Your task to perform on an android device: See recent photos Image 0: 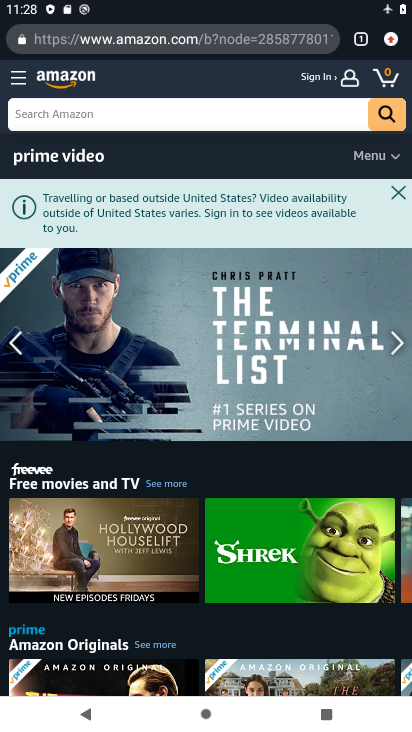
Step 0: drag from (227, 508) to (280, 346)
Your task to perform on an android device: See recent photos Image 1: 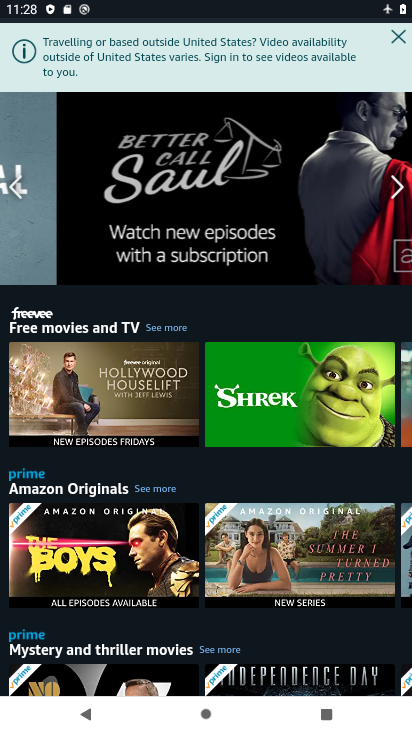
Step 1: drag from (193, 628) to (251, 410)
Your task to perform on an android device: See recent photos Image 2: 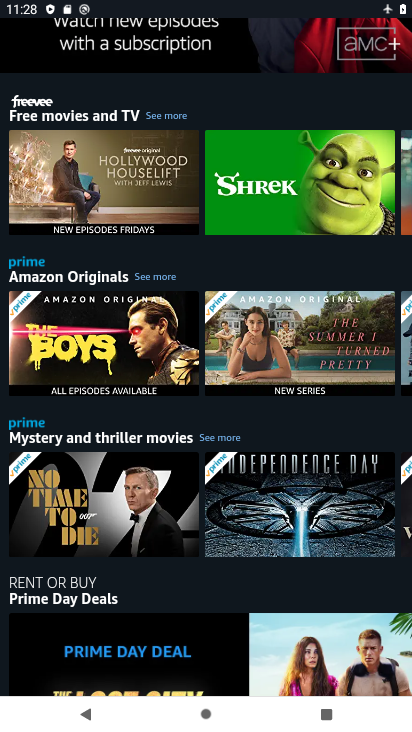
Step 2: drag from (197, 146) to (206, 635)
Your task to perform on an android device: See recent photos Image 3: 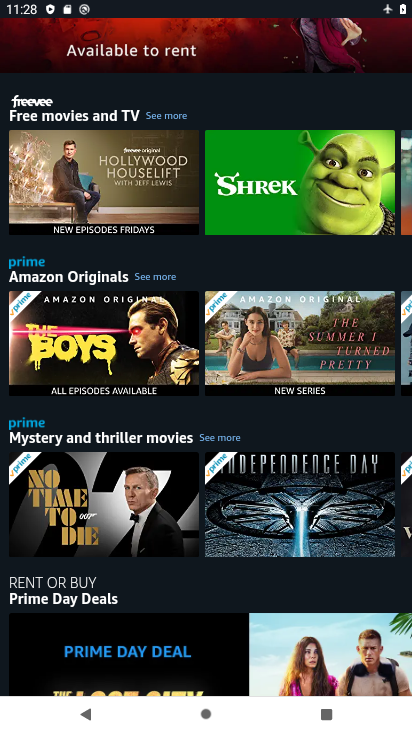
Step 3: press home button
Your task to perform on an android device: See recent photos Image 4: 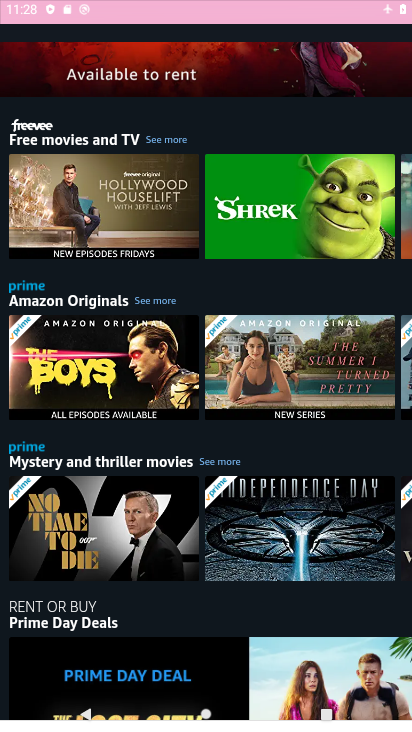
Step 4: drag from (131, 624) to (283, 122)
Your task to perform on an android device: See recent photos Image 5: 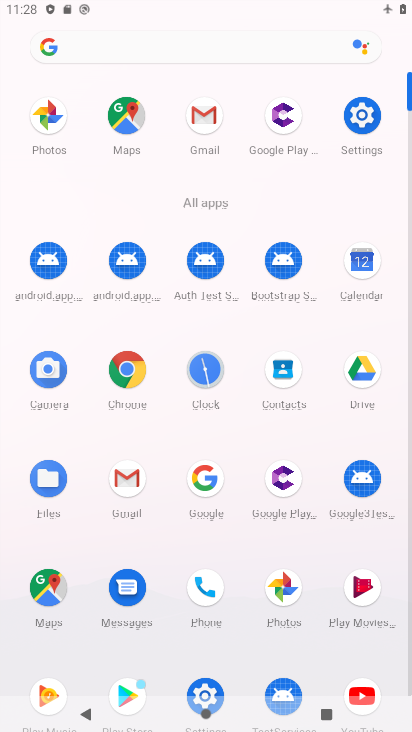
Step 5: click (278, 584)
Your task to perform on an android device: See recent photos Image 6: 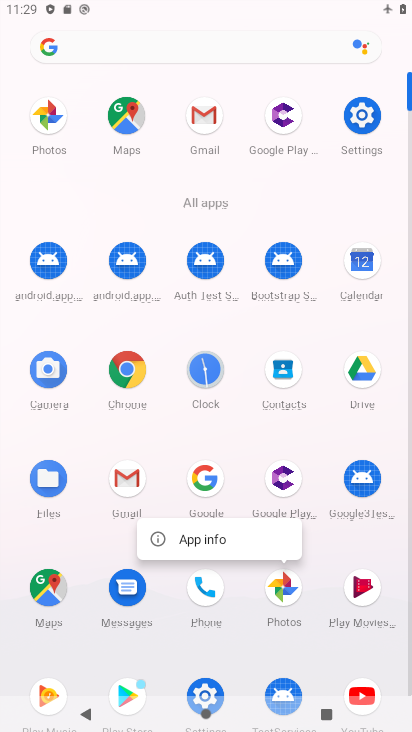
Step 6: click (179, 543)
Your task to perform on an android device: See recent photos Image 7: 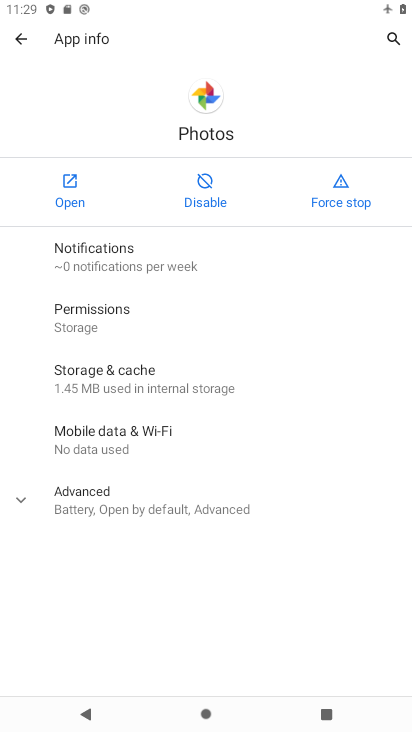
Step 7: click (49, 169)
Your task to perform on an android device: See recent photos Image 8: 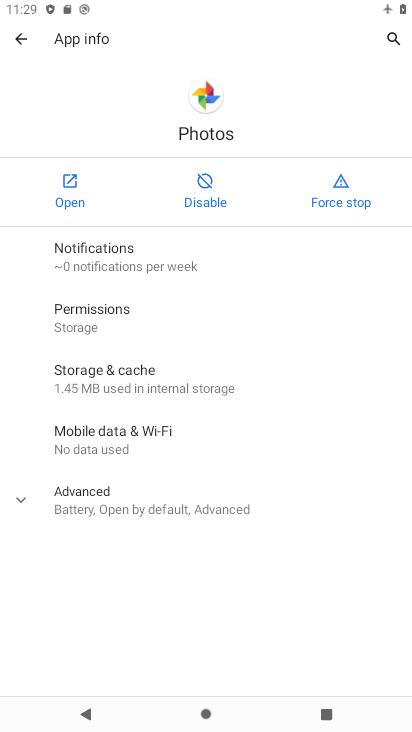
Step 8: click (60, 173)
Your task to perform on an android device: See recent photos Image 9: 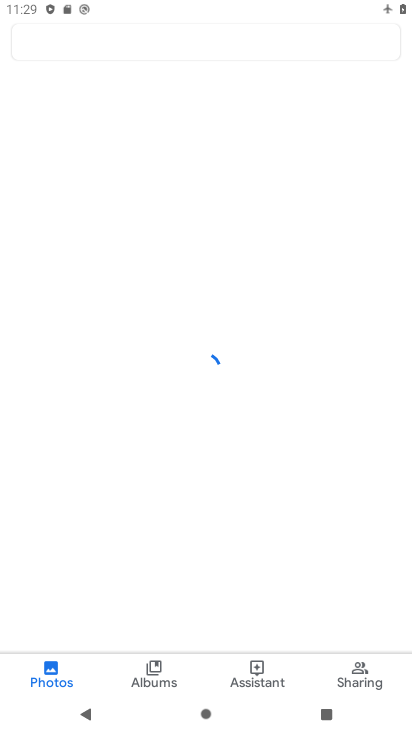
Step 9: drag from (235, 607) to (327, 313)
Your task to perform on an android device: See recent photos Image 10: 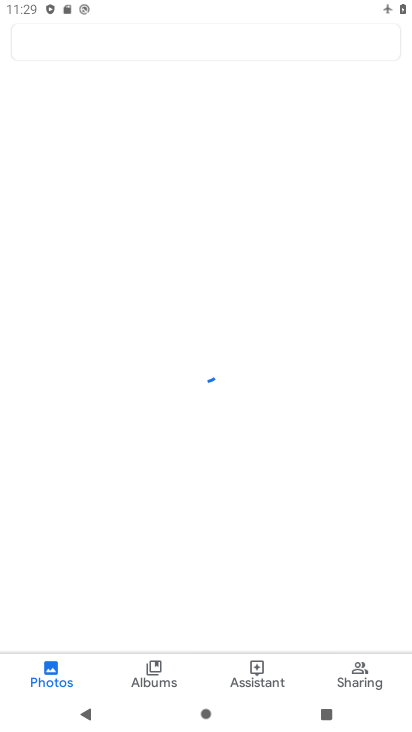
Step 10: click (249, 231)
Your task to perform on an android device: See recent photos Image 11: 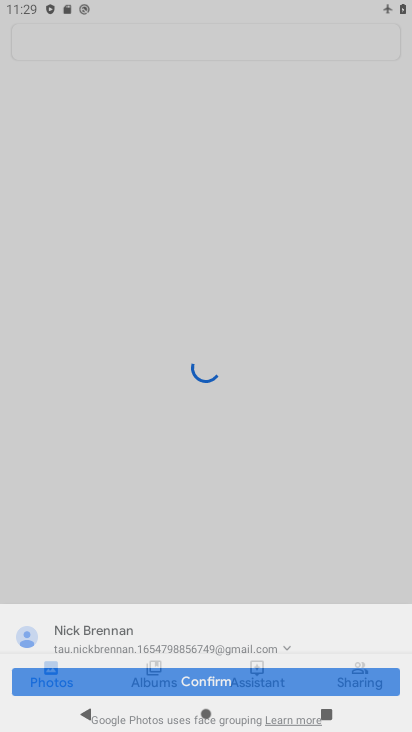
Step 11: drag from (287, 460) to (340, 259)
Your task to perform on an android device: See recent photos Image 12: 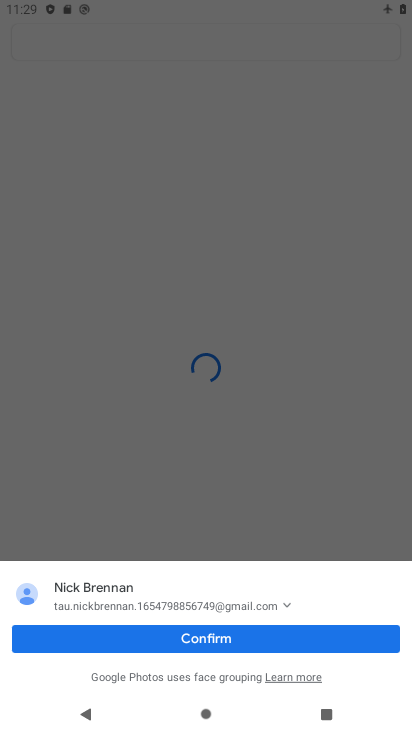
Step 12: click (346, 211)
Your task to perform on an android device: See recent photos Image 13: 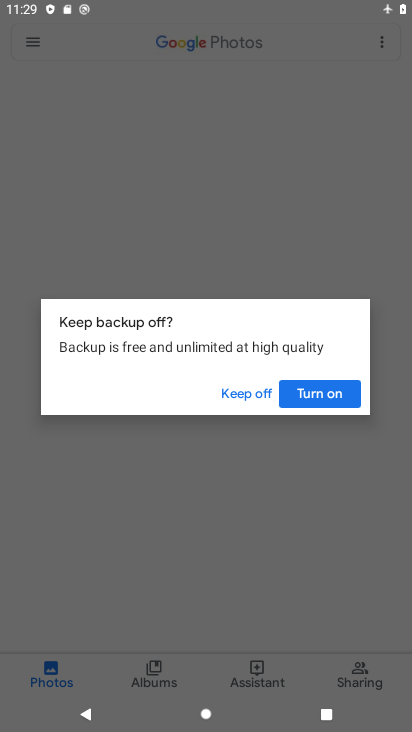
Step 13: drag from (198, 618) to (235, 474)
Your task to perform on an android device: See recent photos Image 14: 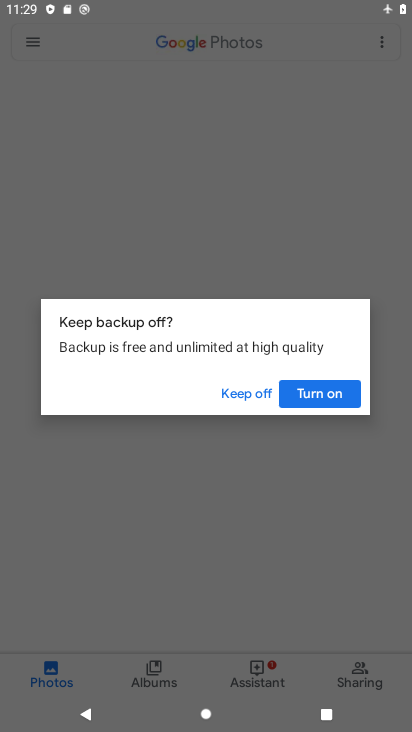
Step 14: click (318, 391)
Your task to perform on an android device: See recent photos Image 15: 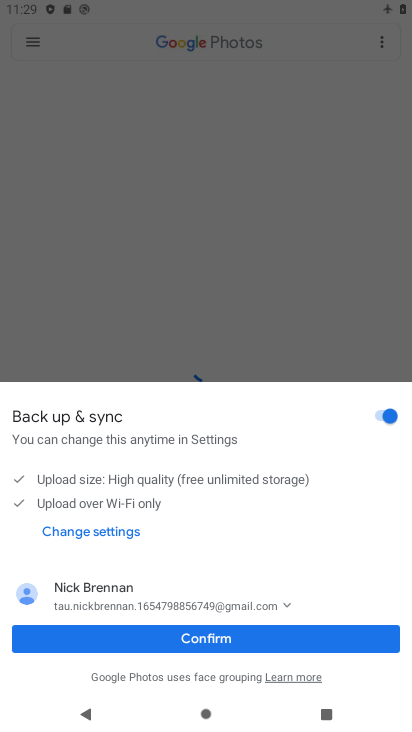
Step 15: click (210, 642)
Your task to perform on an android device: See recent photos Image 16: 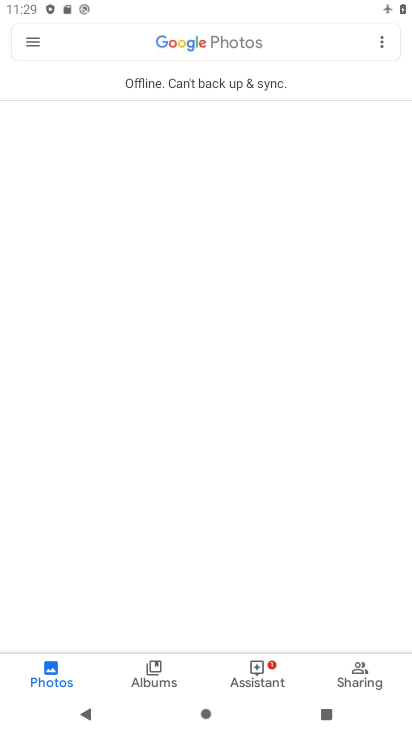
Step 16: task complete